Your task to perform on an android device: install app "Expedia: Hotels, Flights & Car" Image 0: 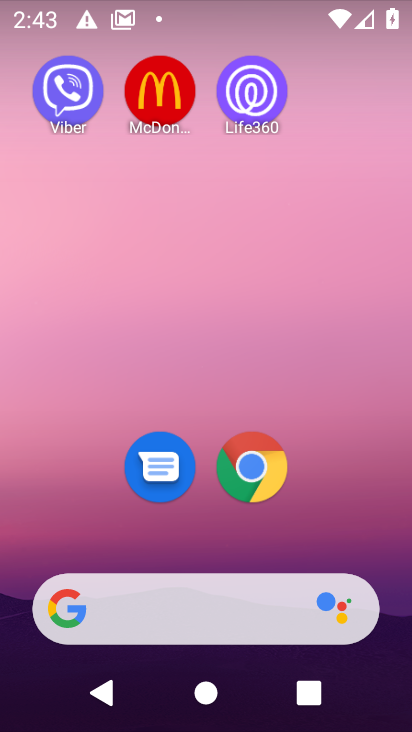
Step 0: drag from (340, 545) to (329, 73)
Your task to perform on an android device: install app "Expedia: Hotels, Flights & Car" Image 1: 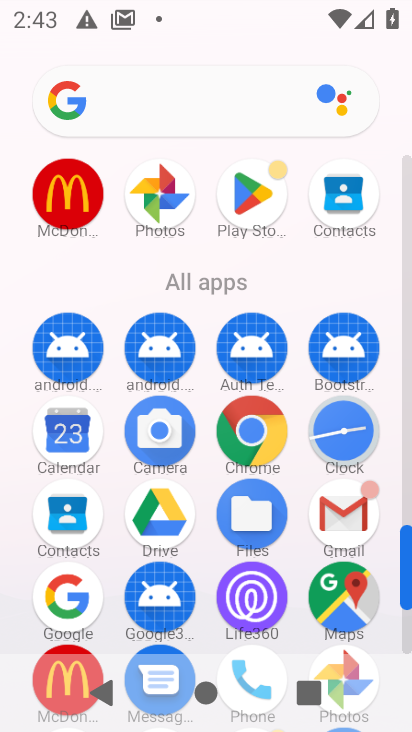
Step 1: click (241, 194)
Your task to perform on an android device: install app "Expedia: Hotels, Flights & Car" Image 2: 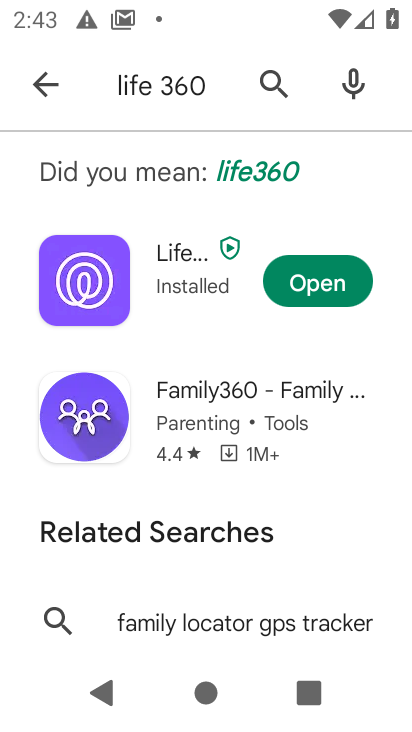
Step 2: click (277, 86)
Your task to perform on an android device: install app "Expedia: Hotels, Flights & Car" Image 3: 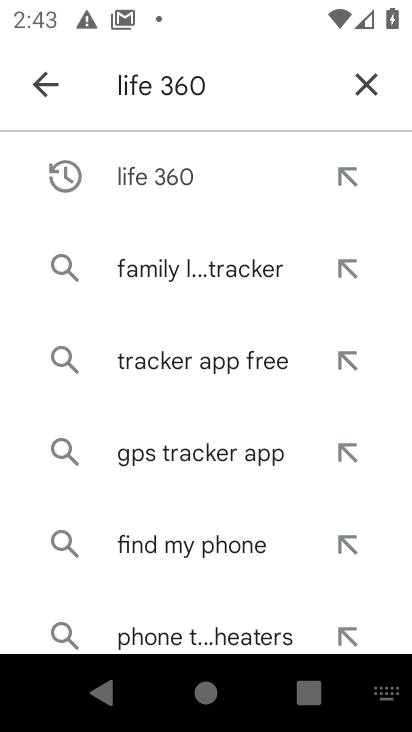
Step 3: click (342, 82)
Your task to perform on an android device: install app "Expedia: Hotels, Flights & Car" Image 4: 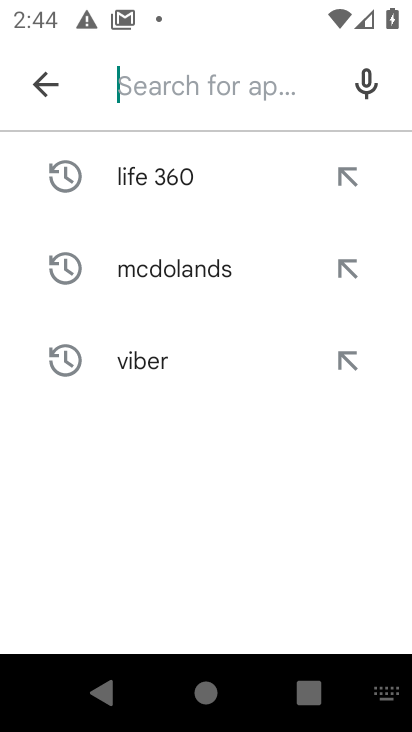
Step 4: type "expedia"
Your task to perform on an android device: install app "Expedia: Hotels, Flights & Car" Image 5: 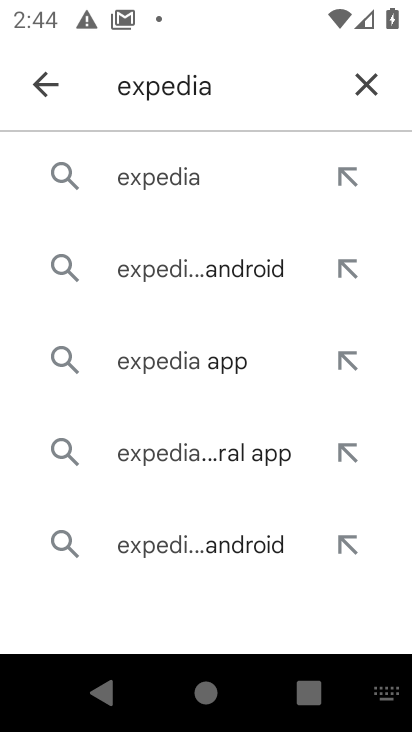
Step 5: click (213, 166)
Your task to perform on an android device: install app "Expedia: Hotels, Flights & Car" Image 6: 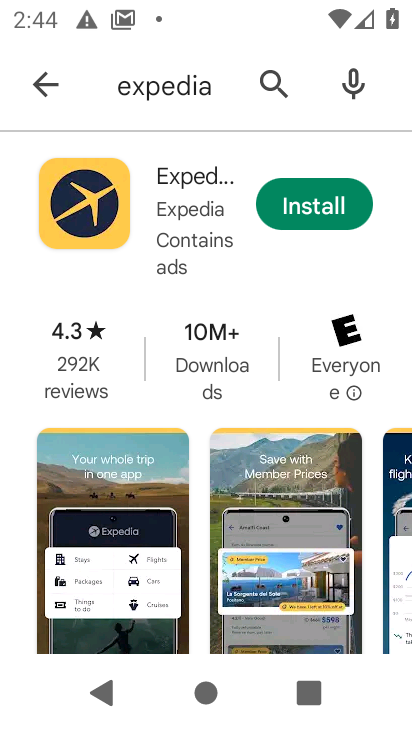
Step 6: click (322, 184)
Your task to perform on an android device: install app "Expedia: Hotels, Flights & Car" Image 7: 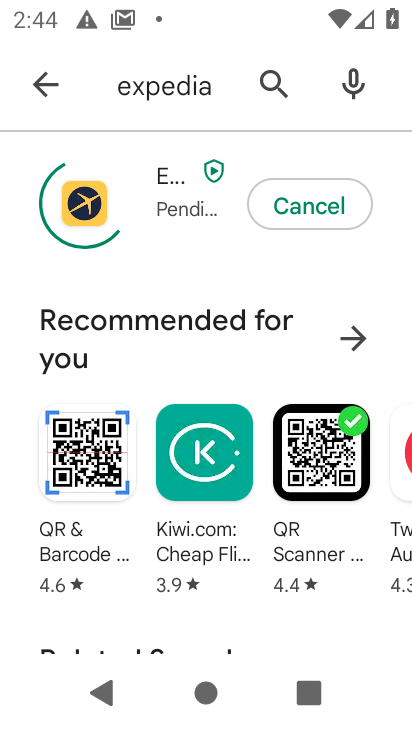
Step 7: task complete